Your task to perform on an android device: delete a single message in the gmail app Image 0: 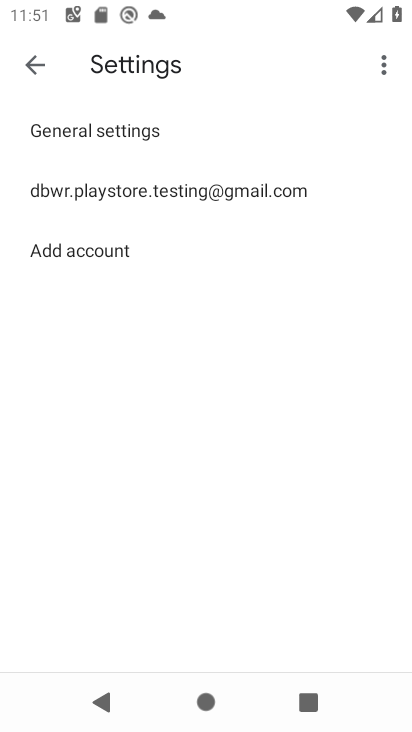
Step 0: click (35, 61)
Your task to perform on an android device: delete a single message in the gmail app Image 1: 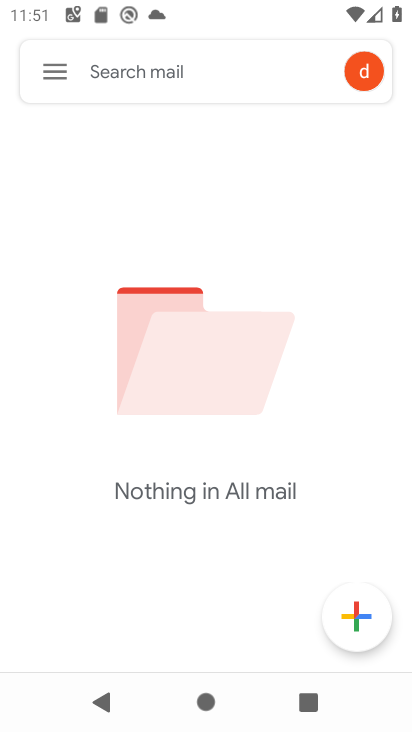
Step 1: task complete